Your task to perform on an android device: delete a single message in the gmail app Image 0: 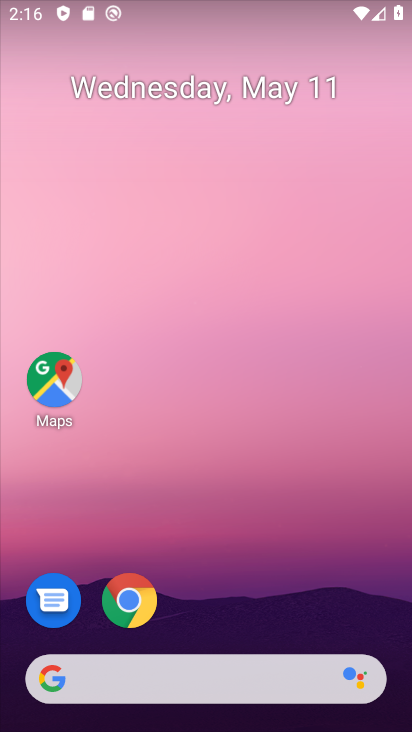
Step 0: drag from (209, 538) to (224, 69)
Your task to perform on an android device: delete a single message in the gmail app Image 1: 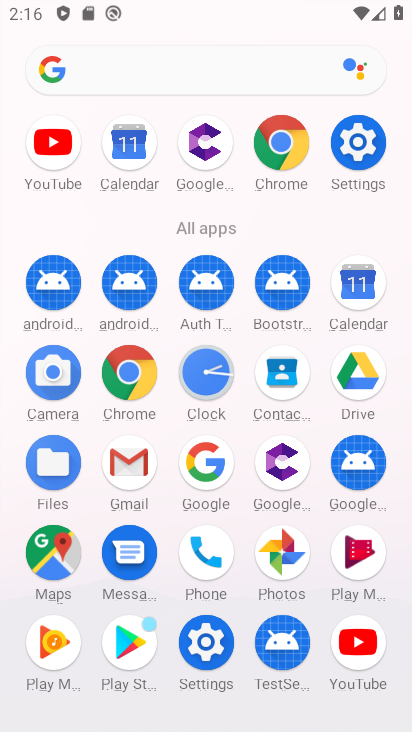
Step 1: click (152, 470)
Your task to perform on an android device: delete a single message in the gmail app Image 2: 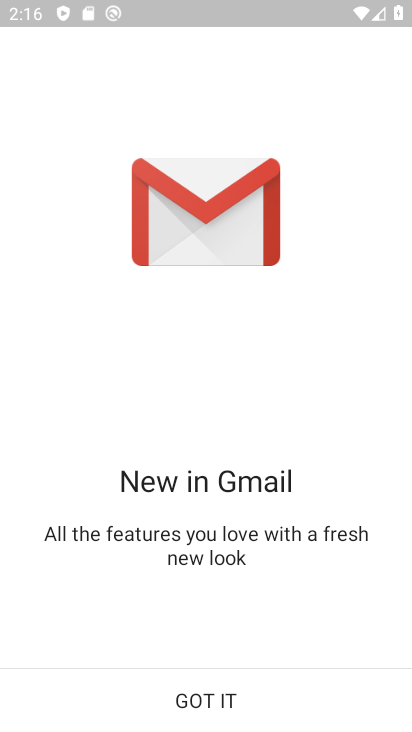
Step 2: click (186, 704)
Your task to perform on an android device: delete a single message in the gmail app Image 3: 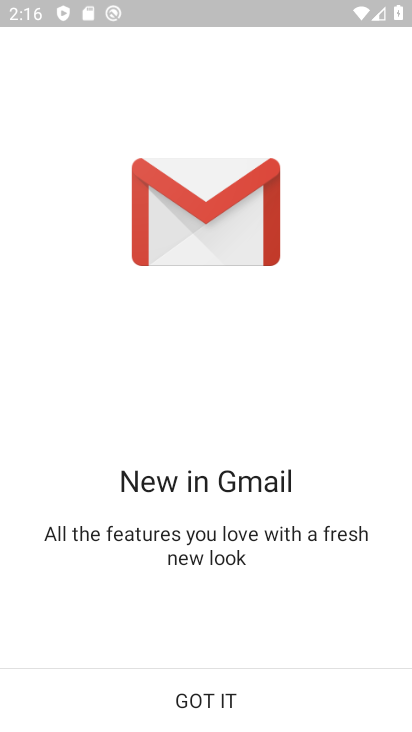
Step 3: click (186, 704)
Your task to perform on an android device: delete a single message in the gmail app Image 4: 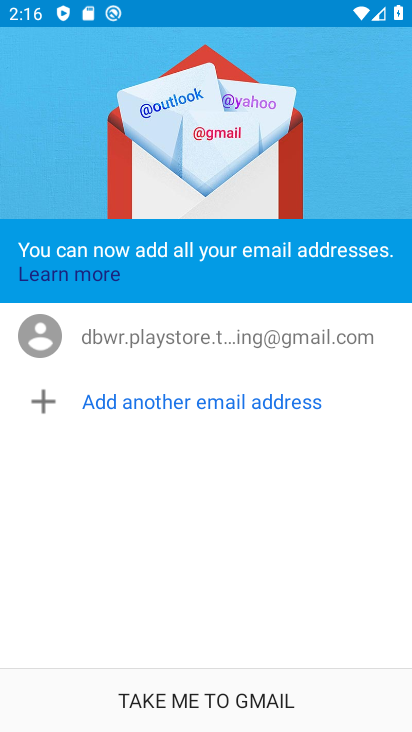
Step 4: click (186, 704)
Your task to perform on an android device: delete a single message in the gmail app Image 5: 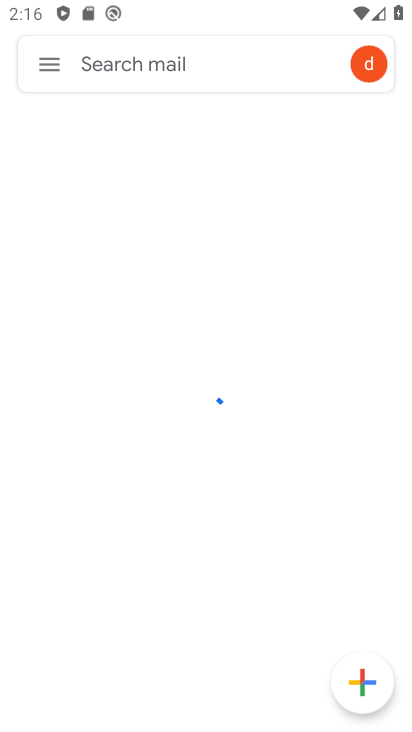
Step 5: task complete